Your task to perform on an android device: turn vacation reply on in the gmail app Image 0: 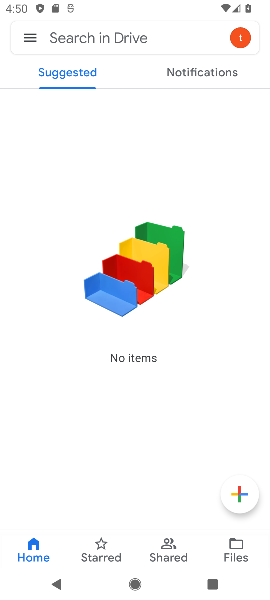
Step 0: click (36, 35)
Your task to perform on an android device: turn vacation reply on in the gmail app Image 1: 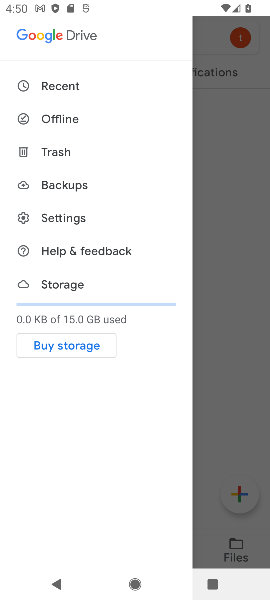
Step 1: press home button
Your task to perform on an android device: turn vacation reply on in the gmail app Image 2: 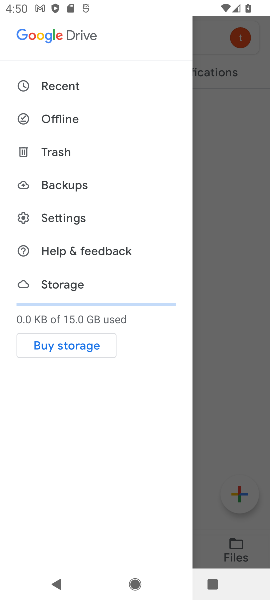
Step 2: press home button
Your task to perform on an android device: turn vacation reply on in the gmail app Image 3: 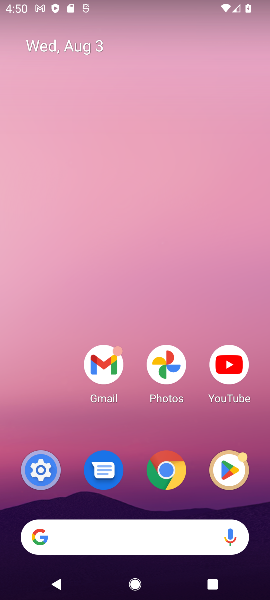
Step 3: drag from (70, 391) to (98, 78)
Your task to perform on an android device: turn vacation reply on in the gmail app Image 4: 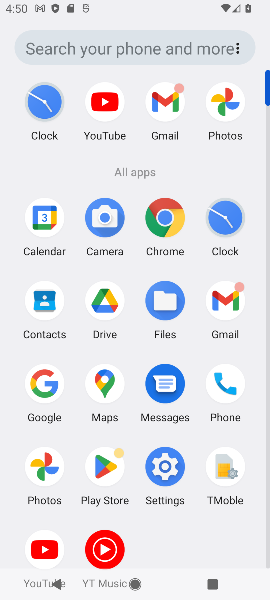
Step 4: click (224, 301)
Your task to perform on an android device: turn vacation reply on in the gmail app Image 5: 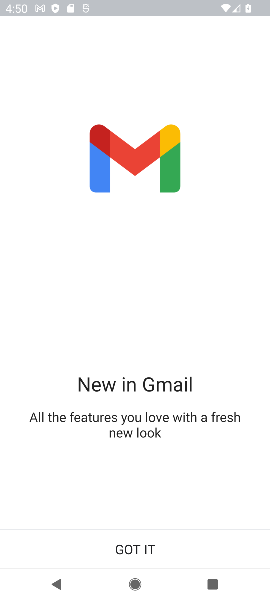
Step 5: click (169, 551)
Your task to perform on an android device: turn vacation reply on in the gmail app Image 6: 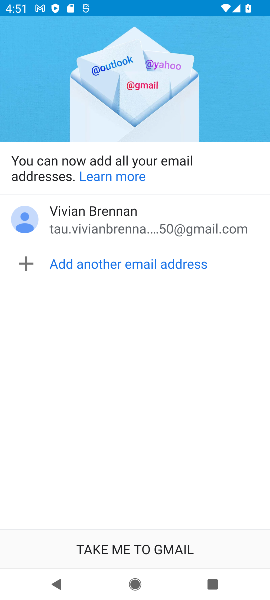
Step 6: click (127, 545)
Your task to perform on an android device: turn vacation reply on in the gmail app Image 7: 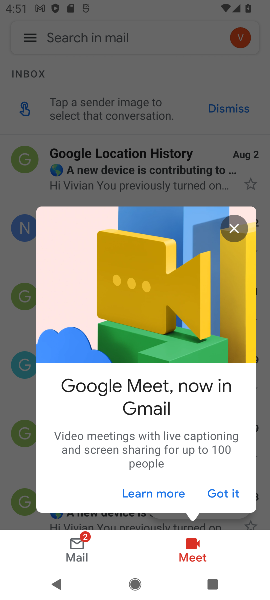
Step 7: click (221, 491)
Your task to perform on an android device: turn vacation reply on in the gmail app Image 8: 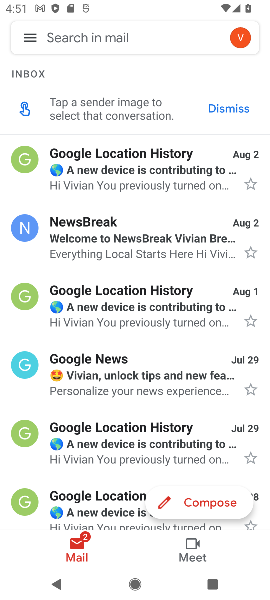
Step 8: click (29, 27)
Your task to perform on an android device: turn vacation reply on in the gmail app Image 9: 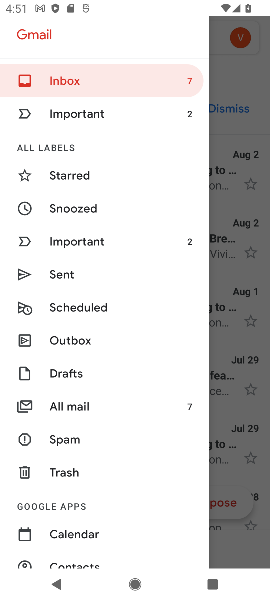
Step 9: drag from (102, 513) to (126, 204)
Your task to perform on an android device: turn vacation reply on in the gmail app Image 10: 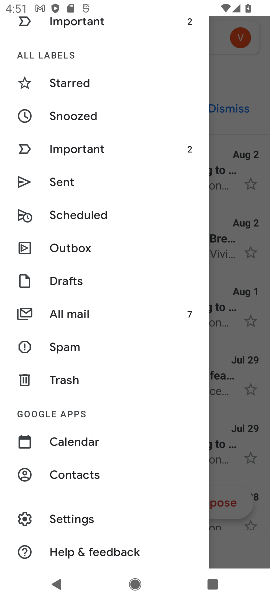
Step 10: click (80, 516)
Your task to perform on an android device: turn vacation reply on in the gmail app Image 11: 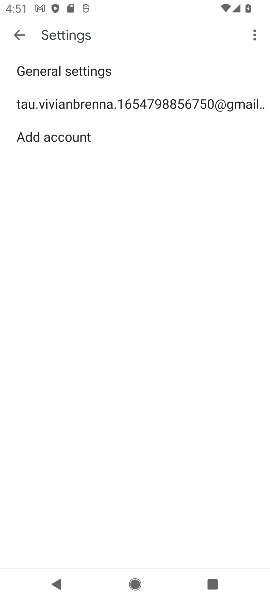
Step 11: click (105, 101)
Your task to perform on an android device: turn vacation reply on in the gmail app Image 12: 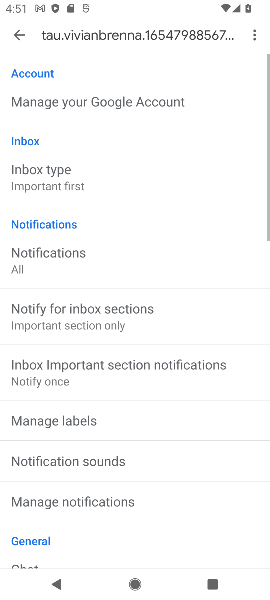
Step 12: drag from (108, 523) to (113, 108)
Your task to perform on an android device: turn vacation reply on in the gmail app Image 13: 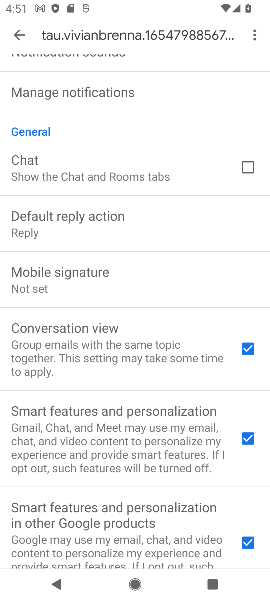
Step 13: drag from (108, 483) to (130, 158)
Your task to perform on an android device: turn vacation reply on in the gmail app Image 14: 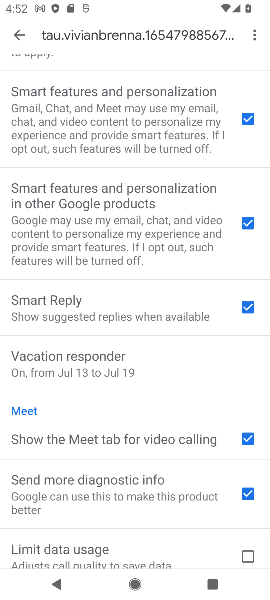
Step 14: drag from (106, 489) to (118, 114)
Your task to perform on an android device: turn vacation reply on in the gmail app Image 15: 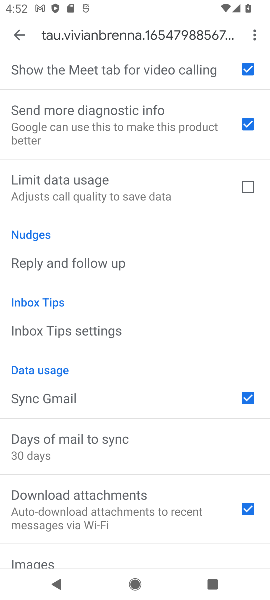
Step 15: drag from (117, 424) to (154, 93)
Your task to perform on an android device: turn vacation reply on in the gmail app Image 16: 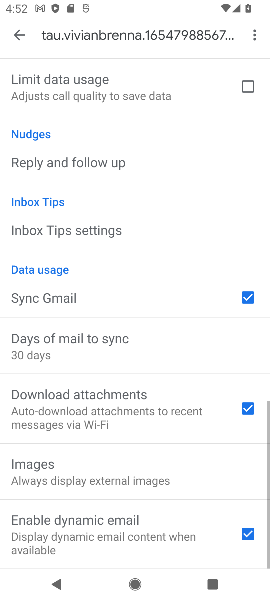
Step 16: drag from (102, 200) to (140, 531)
Your task to perform on an android device: turn vacation reply on in the gmail app Image 17: 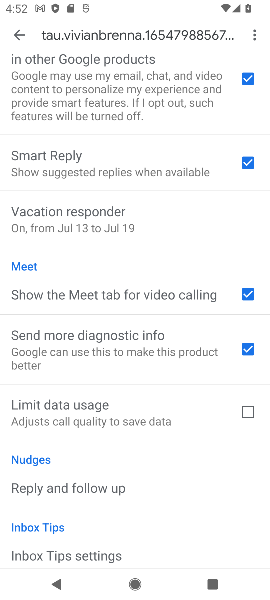
Step 17: drag from (73, 128) to (82, 485)
Your task to perform on an android device: turn vacation reply on in the gmail app Image 18: 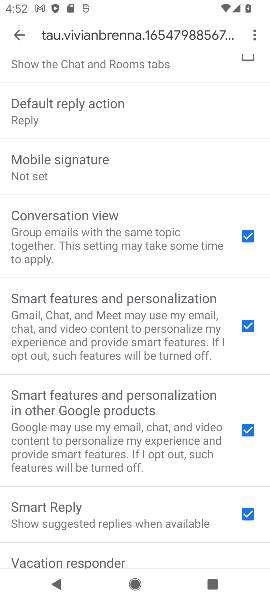
Step 18: drag from (116, 135) to (108, 464)
Your task to perform on an android device: turn vacation reply on in the gmail app Image 19: 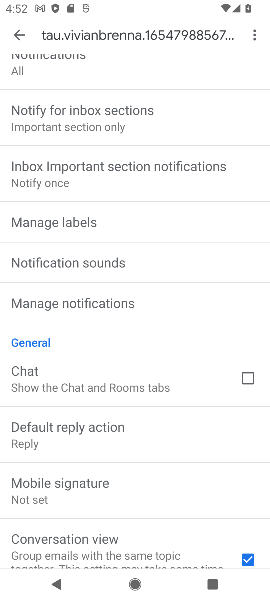
Step 19: drag from (113, 116) to (127, 380)
Your task to perform on an android device: turn vacation reply on in the gmail app Image 20: 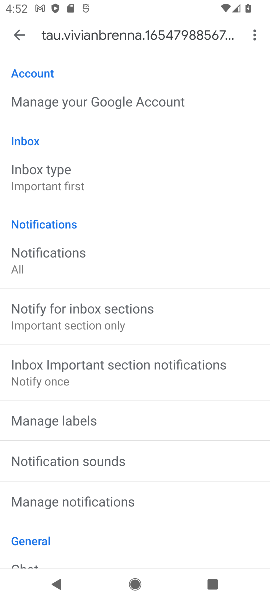
Step 20: drag from (106, 392) to (203, 18)
Your task to perform on an android device: turn vacation reply on in the gmail app Image 21: 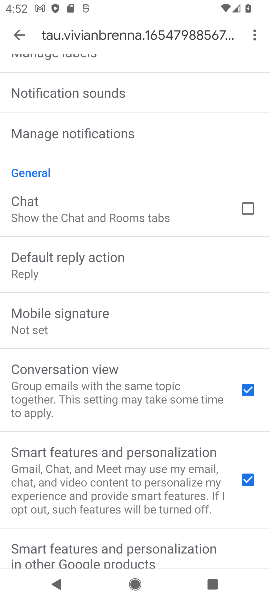
Step 21: drag from (145, 415) to (182, 49)
Your task to perform on an android device: turn vacation reply on in the gmail app Image 22: 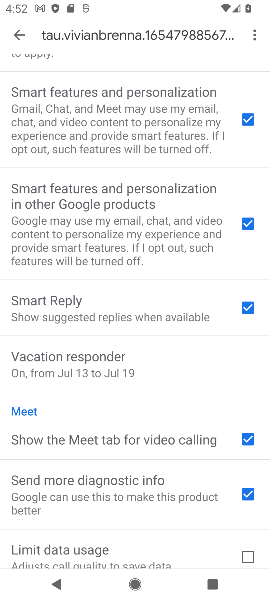
Step 22: click (83, 363)
Your task to perform on an android device: turn vacation reply on in the gmail app Image 23: 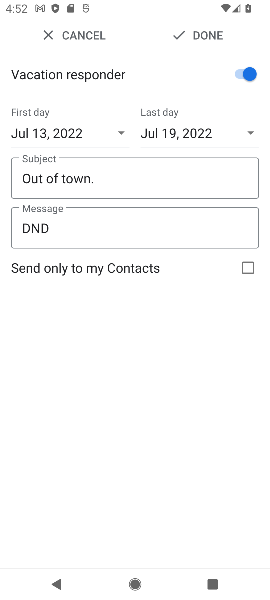
Step 23: task complete